Your task to perform on an android device: Clear the cart on newegg. Search for "alienware aurora" on newegg, select the first entry, add it to the cart, then select checkout. Image 0: 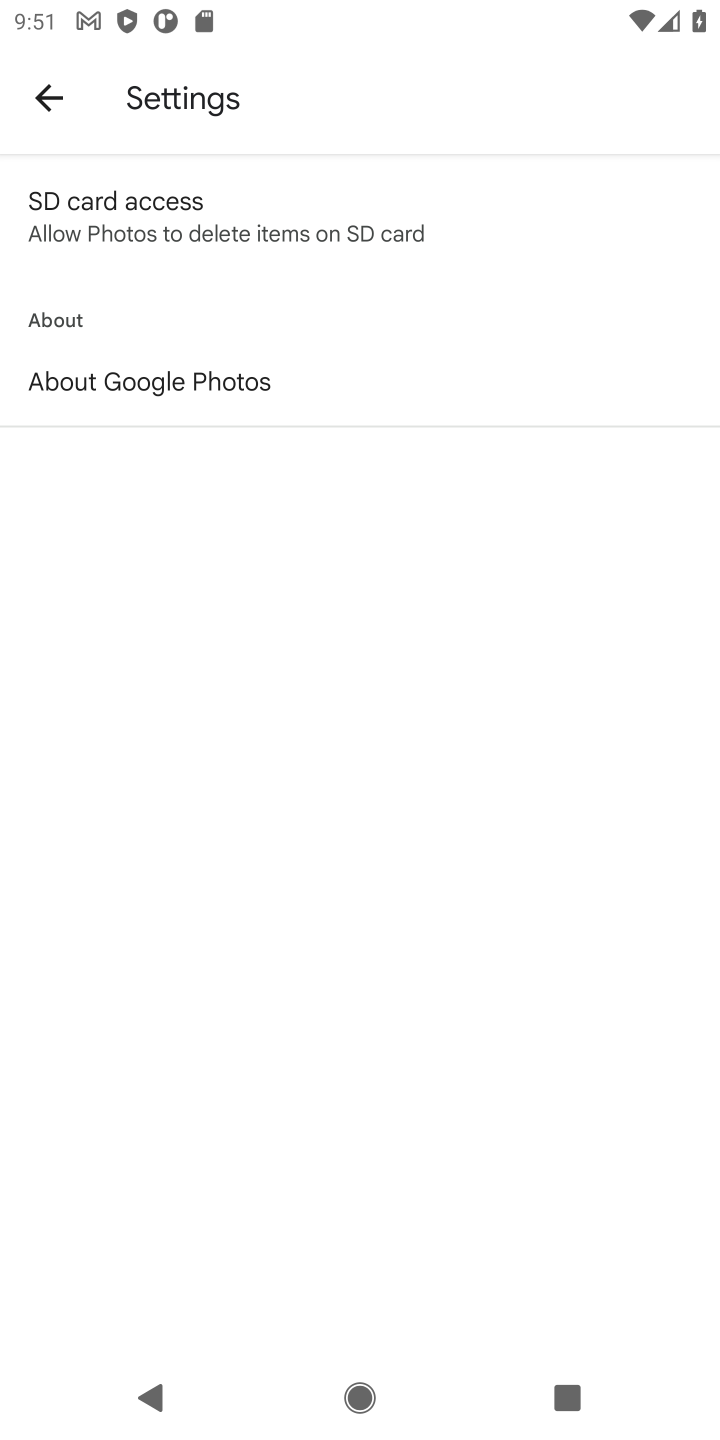
Step 0: press home button
Your task to perform on an android device: Clear the cart on newegg. Search for "alienware aurora" on newegg, select the first entry, add it to the cart, then select checkout. Image 1: 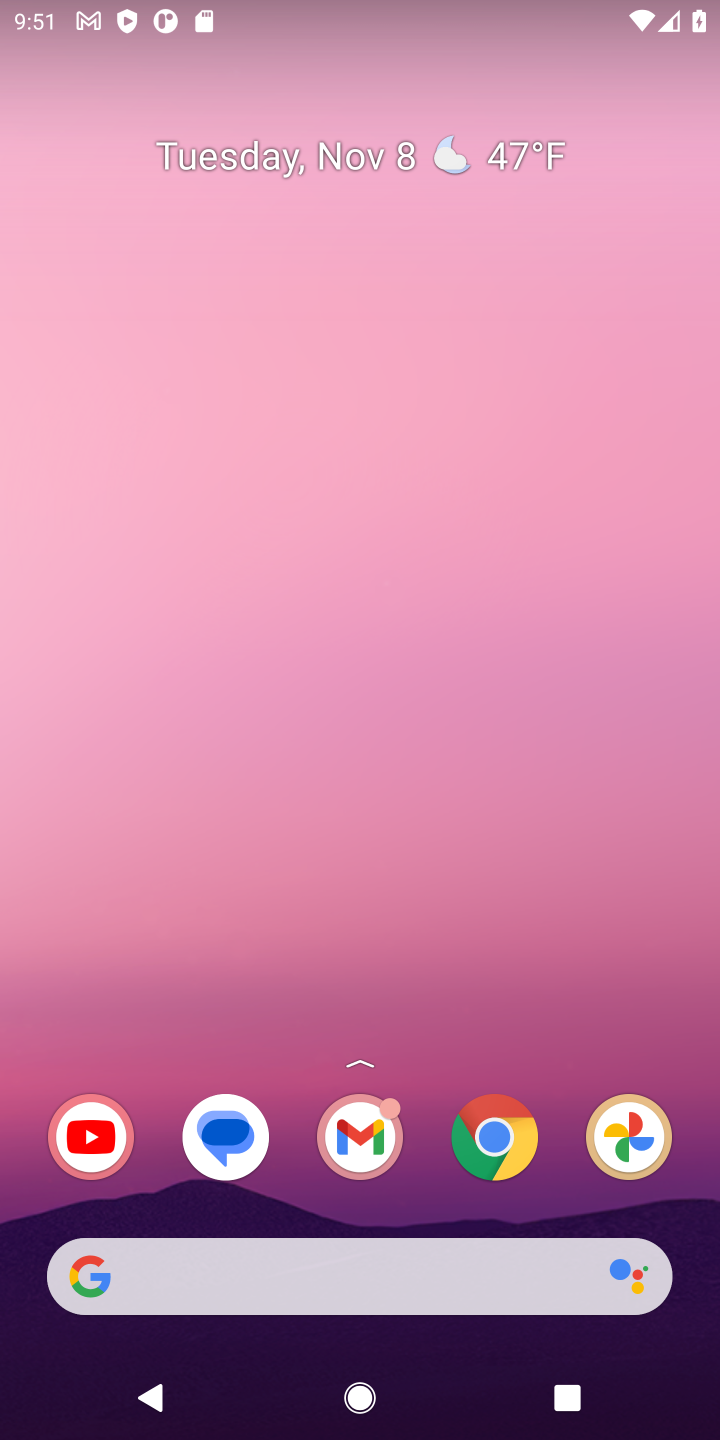
Step 1: click (498, 1140)
Your task to perform on an android device: Clear the cart on newegg. Search for "alienware aurora" on newegg, select the first entry, add it to the cart, then select checkout. Image 2: 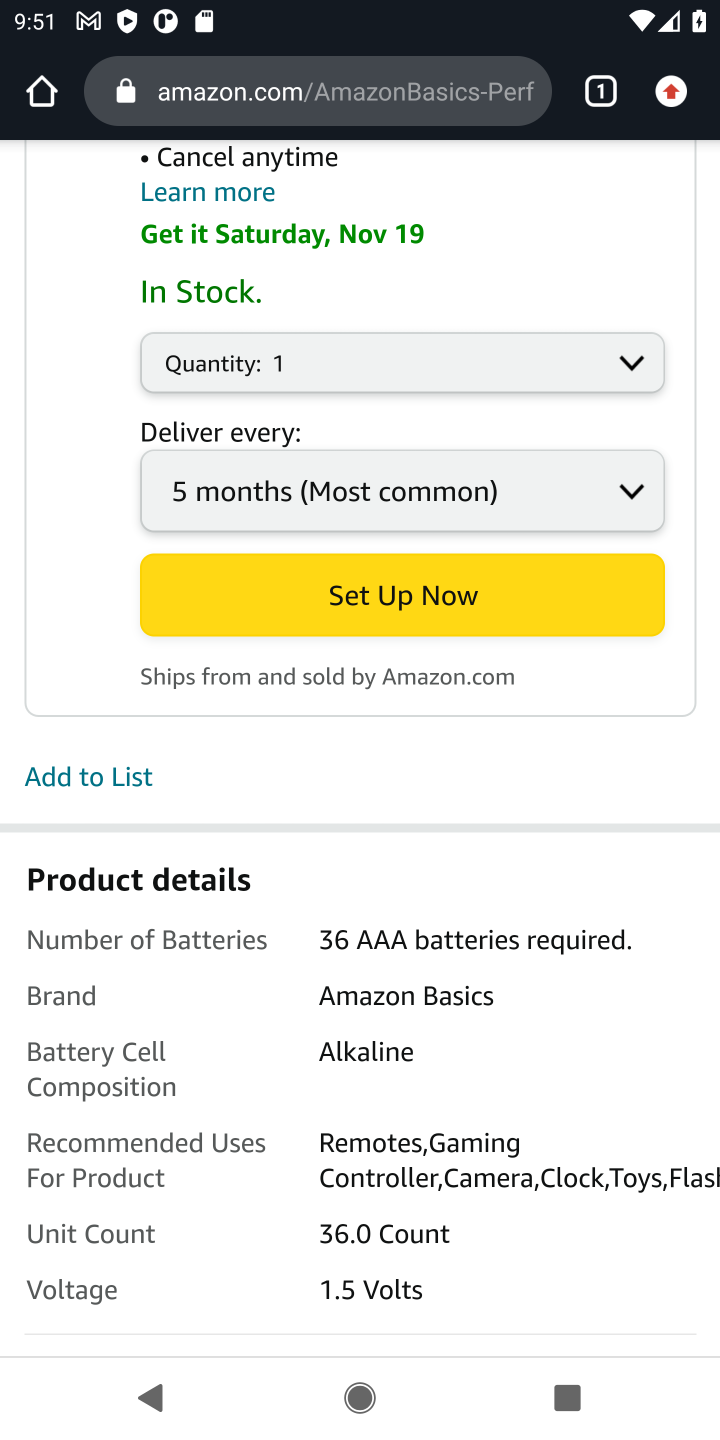
Step 2: click (379, 79)
Your task to perform on an android device: Clear the cart on newegg. Search for "alienware aurora" on newegg, select the first entry, add it to the cart, then select checkout. Image 3: 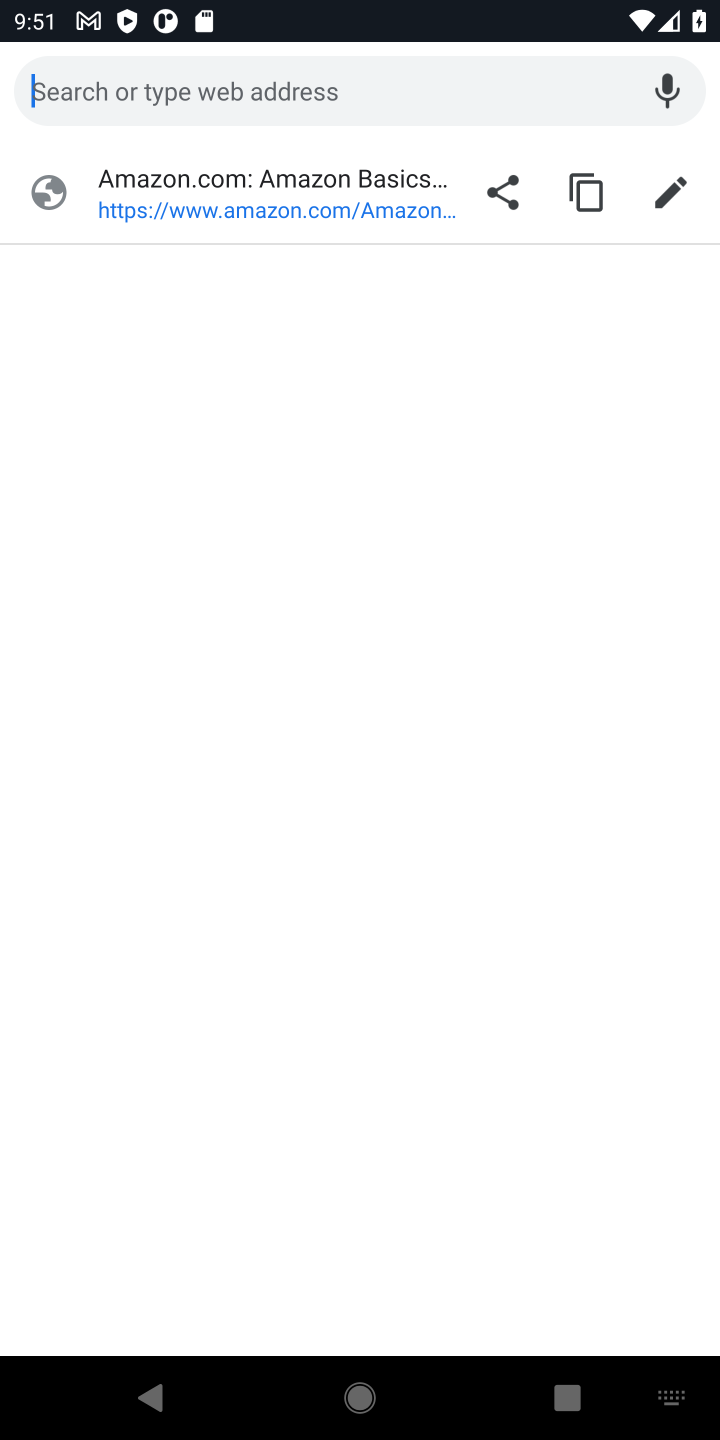
Step 3: type "newegg"
Your task to perform on an android device: Clear the cart on newegg. Search for "alienware aurora" on newegg, select the first entry, add it to the cart, then select checkout. Image 4: 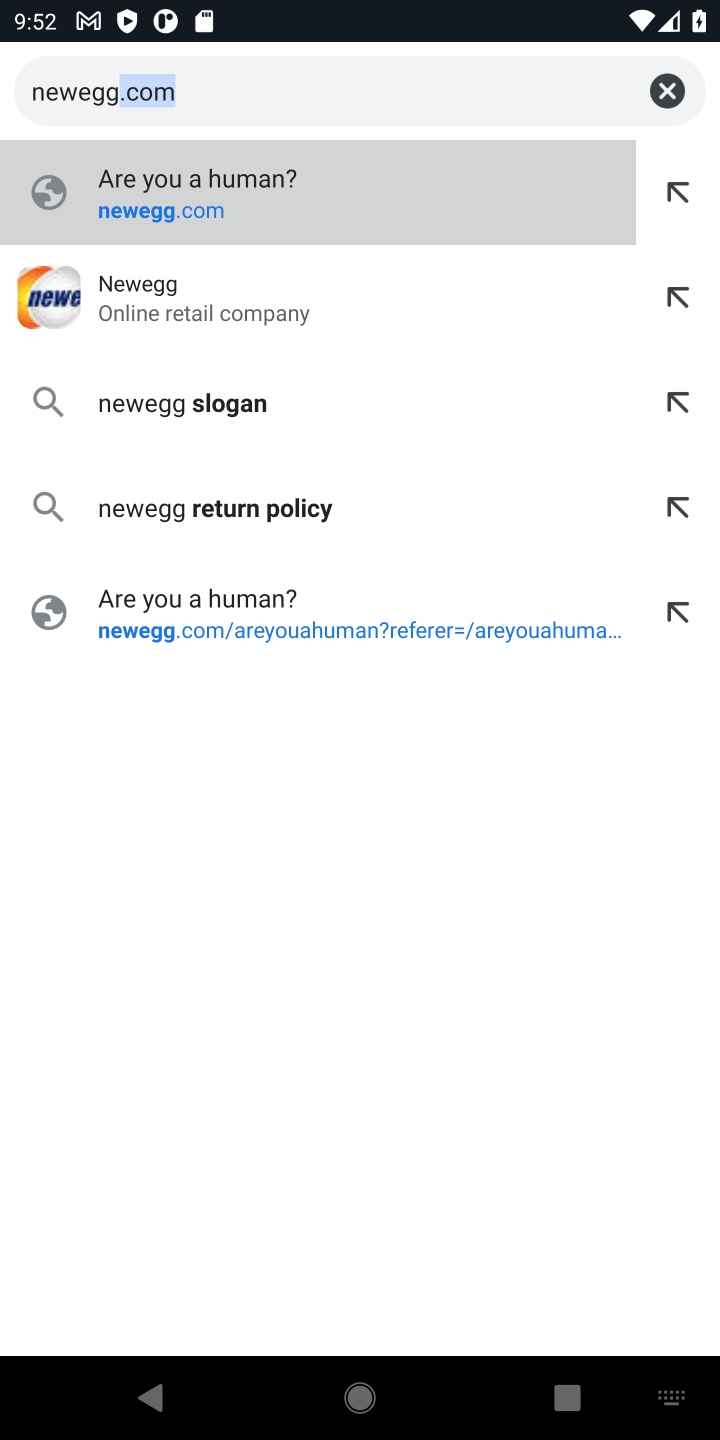
Step 4: click (163, 309)
Your task to perform on an android device: Clear the cart on newegg. Search for "alienware aurora" on newegg, select the first entry, add it to the cart, then select checkout. Image 5: 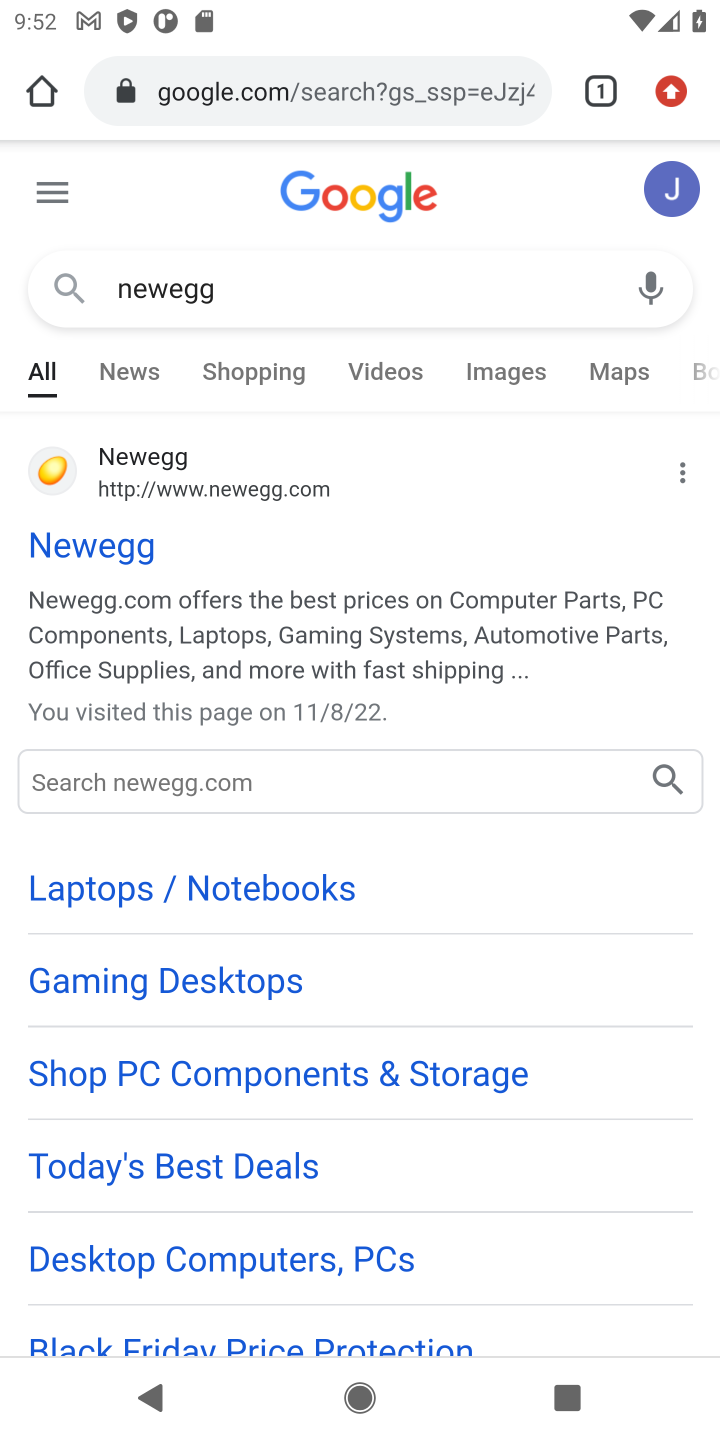
Step 5: click (108, 524)
Your task to perform on an android device: Clear the cart on newegg. Search for "alienware aurora" on newegg, select the first entry, add it to the cart, then select checkout. Image 6: 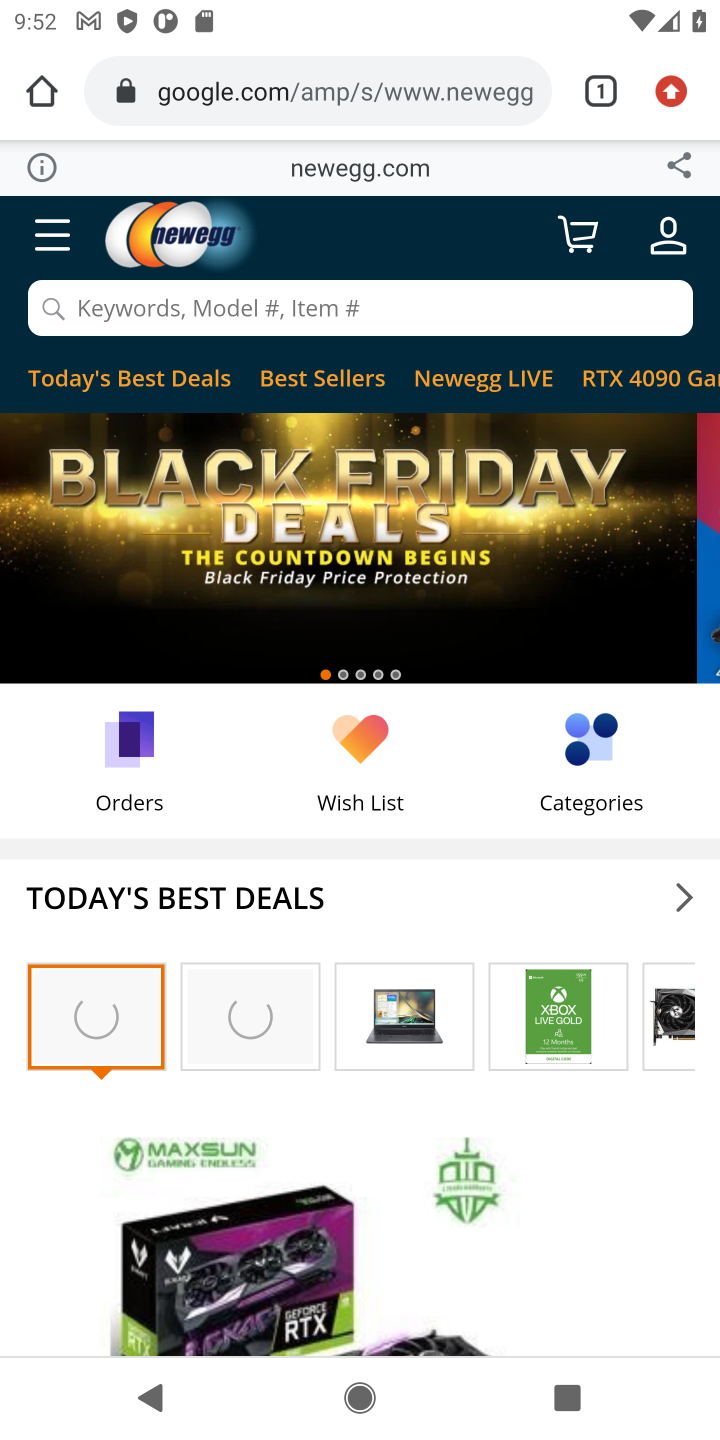
Step 6: click (593, 247)
Your task to perform on an android device: Clear the cart on newegg. Search for "alienware aurora" on newegg, select the first entry, add it to the cart, then select checkout. Image 7: 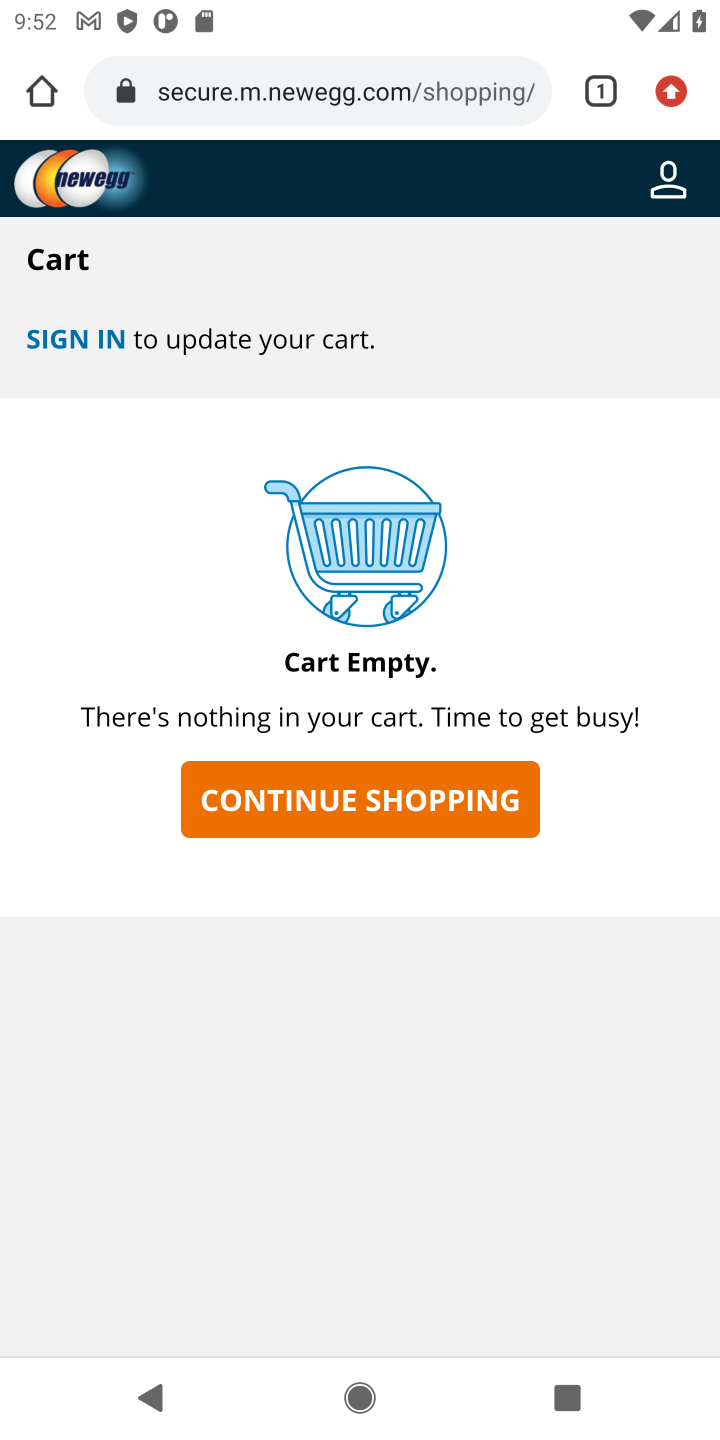
Step 7: click (332, 797)
Your task to perform on an android device: Clear the cart on newegg. Search for "alienware aurora" on newegg, select the first entry, add it to the cart, then select checkout. Image 8: 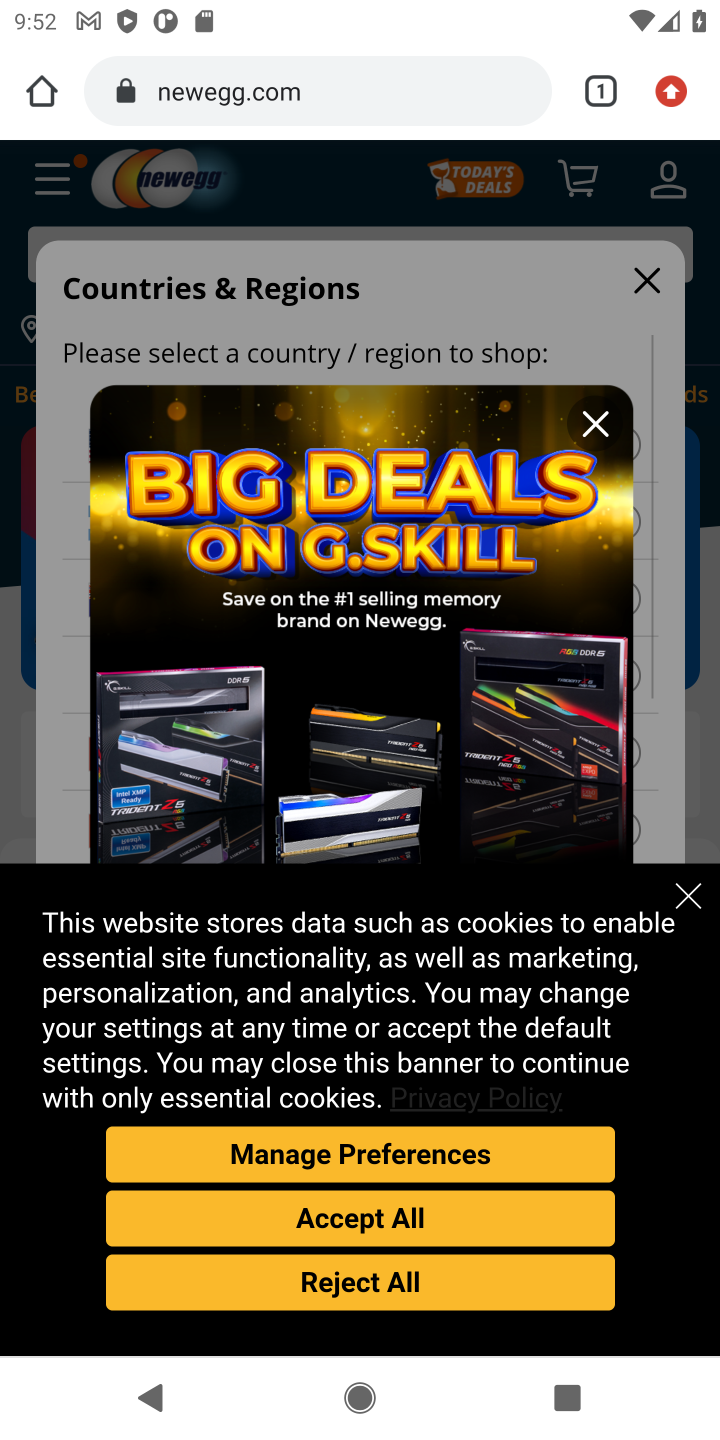
Step 8: click (383, 1219)
Your task to perform on an android device: Clear the cart on newegg. Search for "alienware aurora" on newegg, select the first entry, add it to the cart, then select checkout. Image 9: 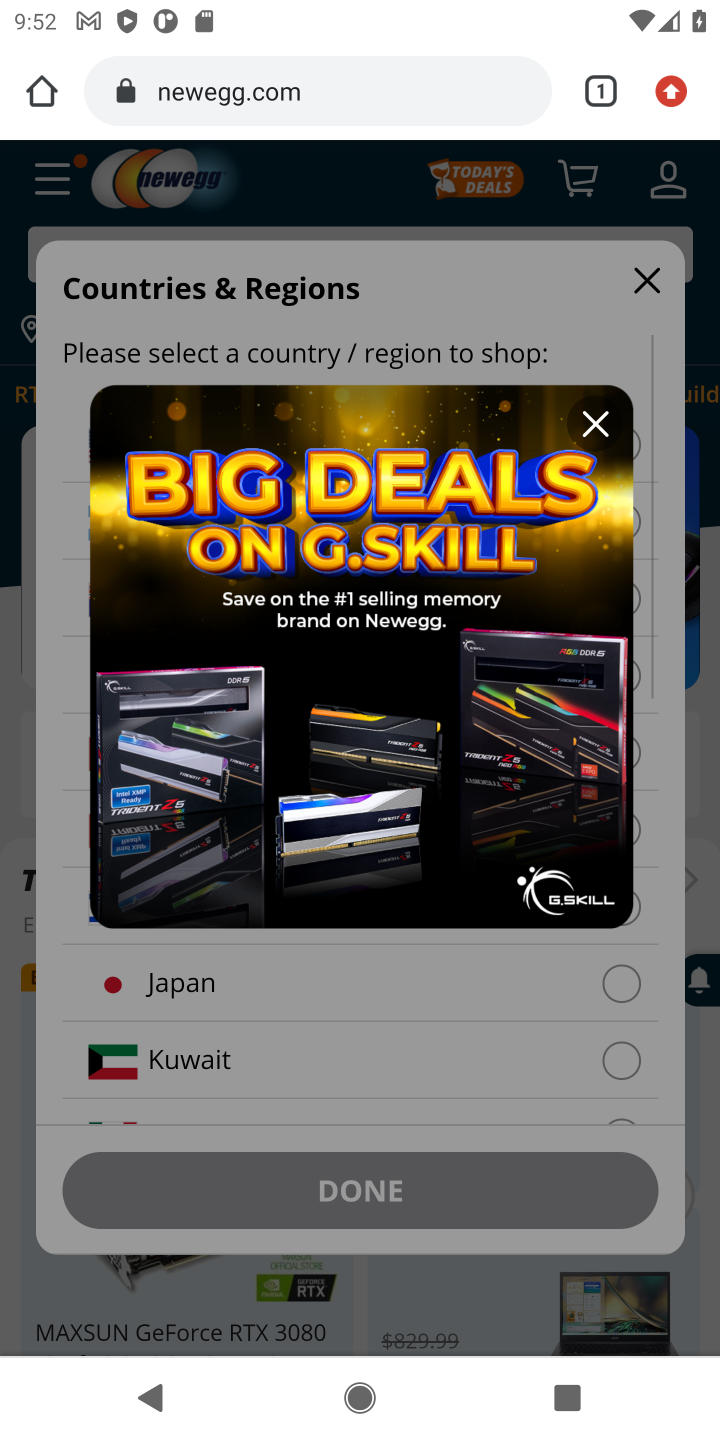
Step 9: click (646, 272)
Your task to perform on an android device: Clear the cart on newegg. Search for "alienware aurora" on newegg, select the first entry, add it to the cart, then select checkout. Image 10: 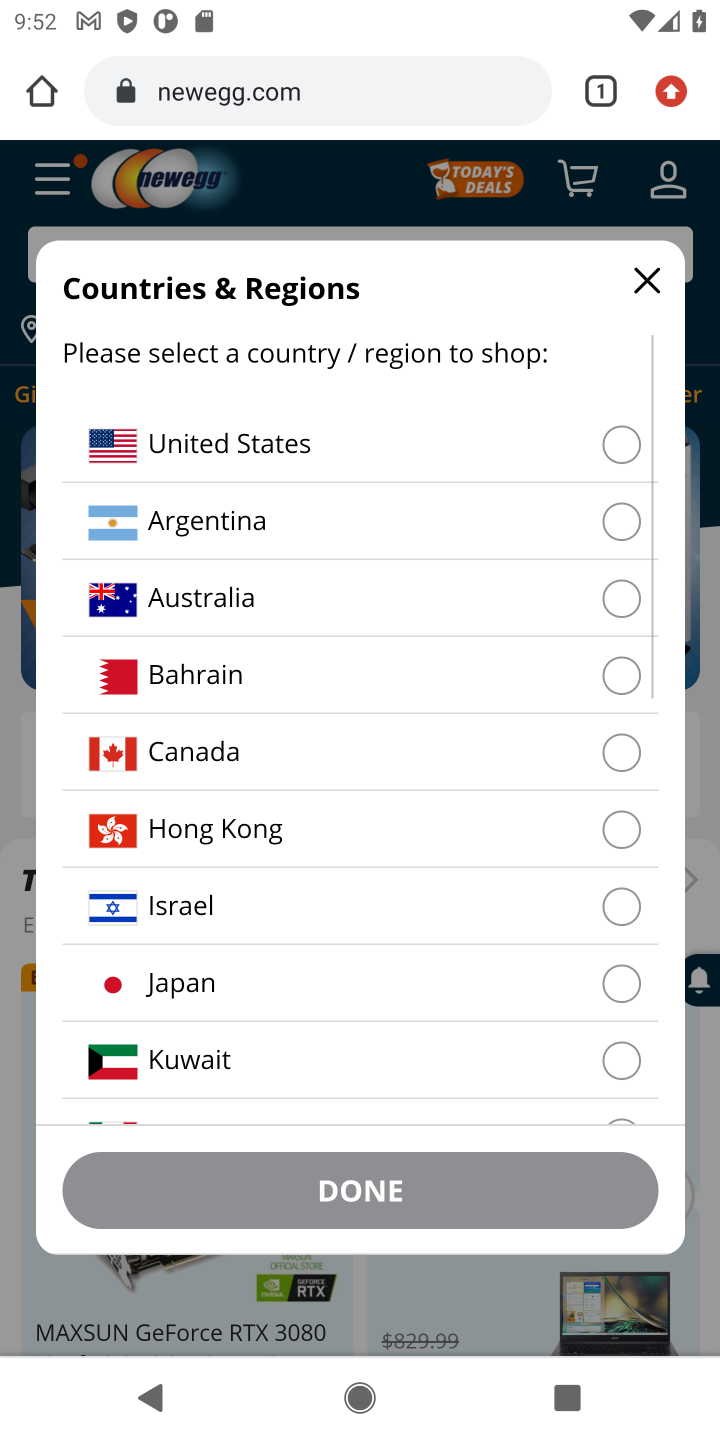
Step 10: click (625, 447)
Your task to perform on an android device: Clear the cart on newegg. Search for "alienware aurora" on newegg, select the first entry, add it to the cart, then select checkout. Image 11: 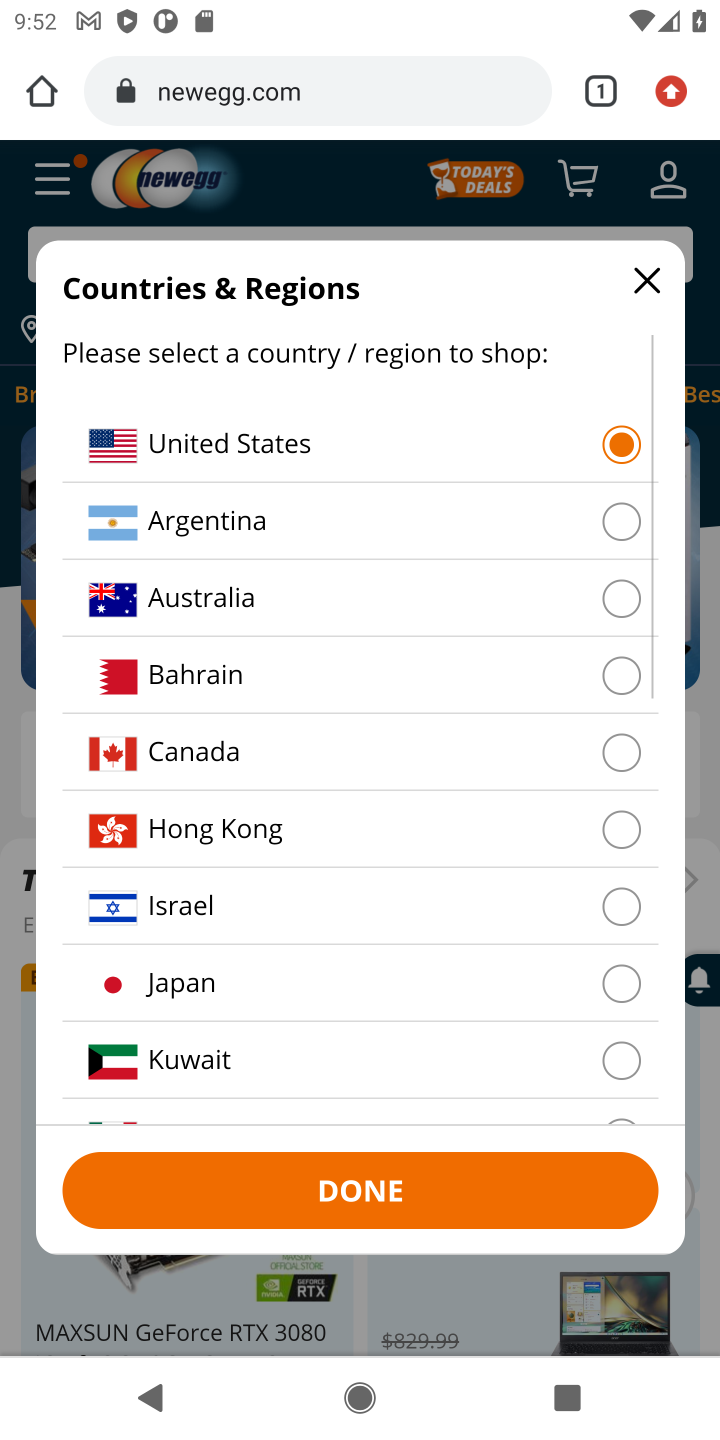
Step 11: click (409, 1178)
Your task to perform on an android device: Clear the cart on newegg. Search for "alienware aurora" on newegg, select the first entry, add it to the cart, then select checkout. Image 12: 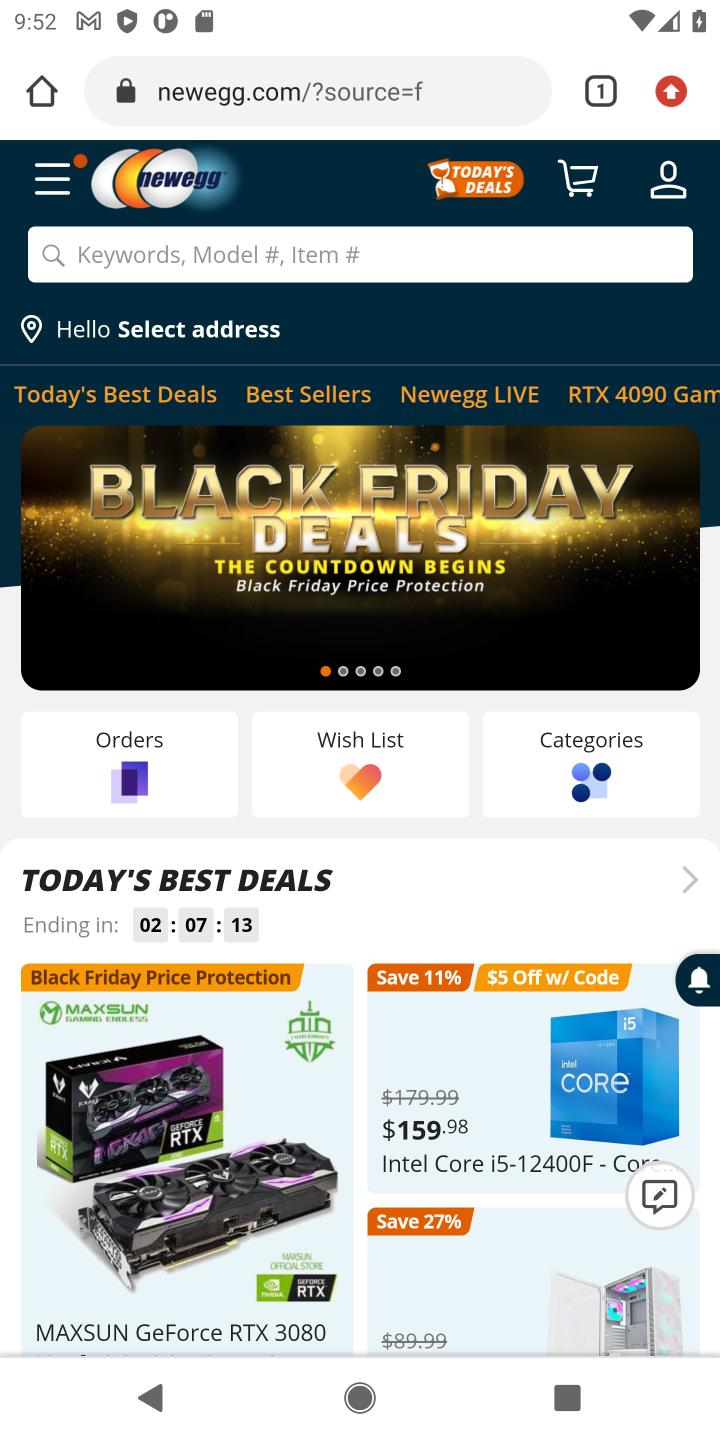
Step 12: click (279, 262)
Your task to perform on an android device: Clear the cart on newegg. Search for "alienware aurora" on newegg, select the first entry, add it to the cart, then select checkout. Image 13: 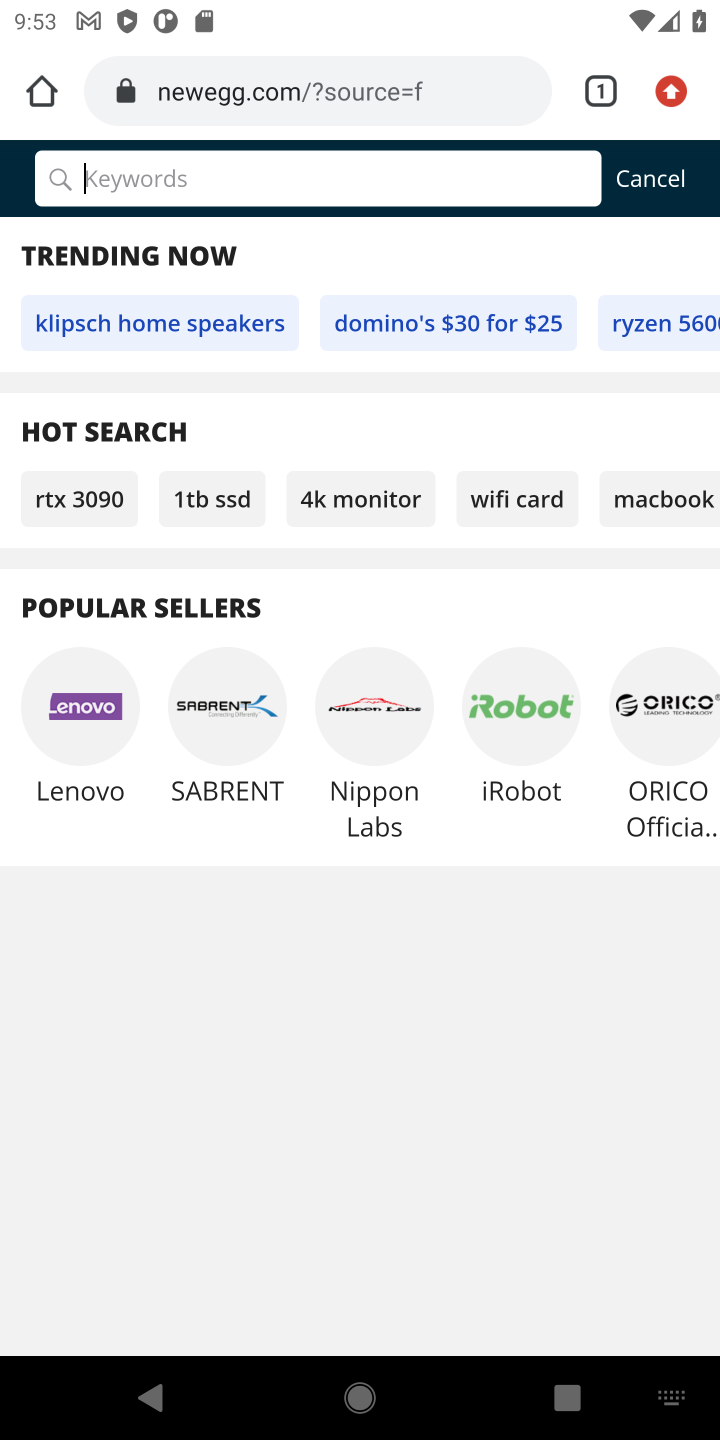
Step 13: type "alienware aurora"
Your task to perform on an android device: Clear the cart on newegg. Search for "alienware aurora" on newegg, select the first entry, add it to the cart, then select checkout. Image 14: 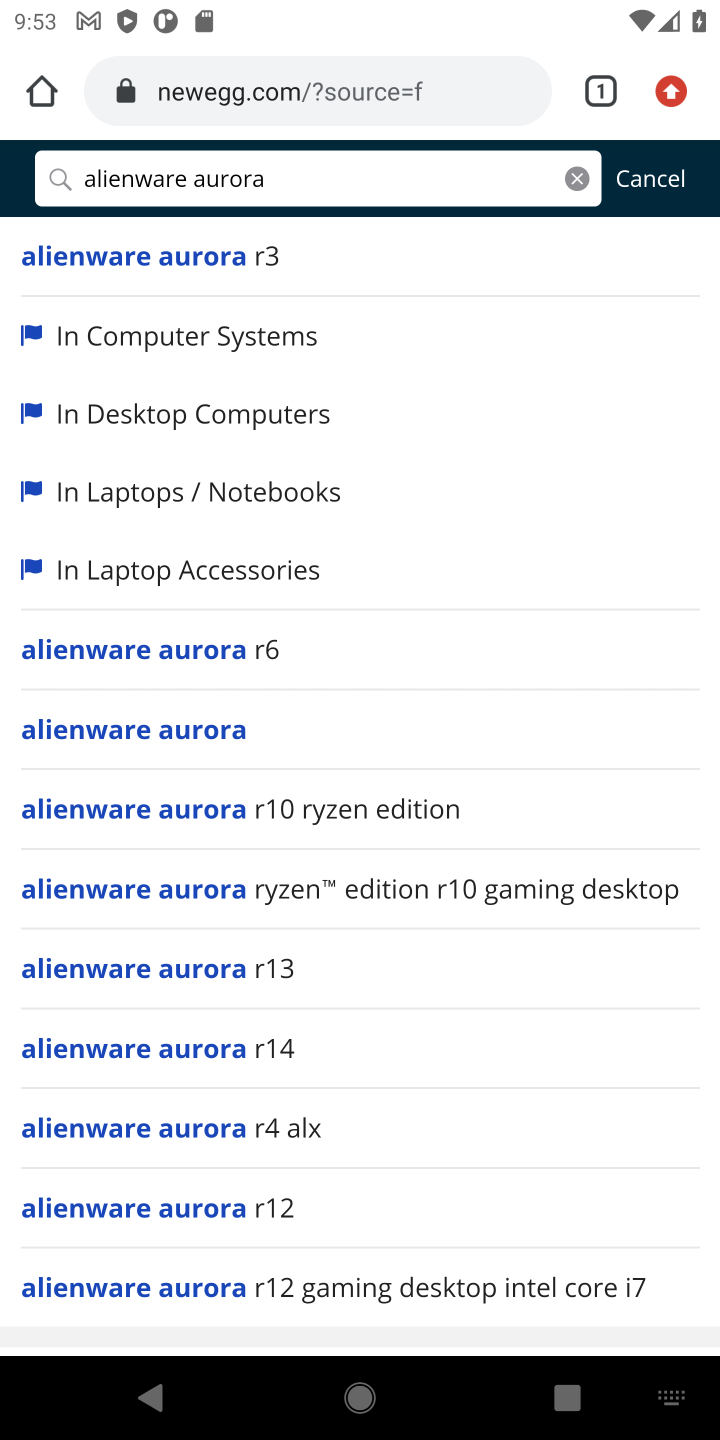
Step 14: click (127, 738)
Your task to perform on an android device: Clear the cart on newegg. Search for "alienware aurora" on newegg, select the first entry, add it to the cart, then select checkout. Image 15: 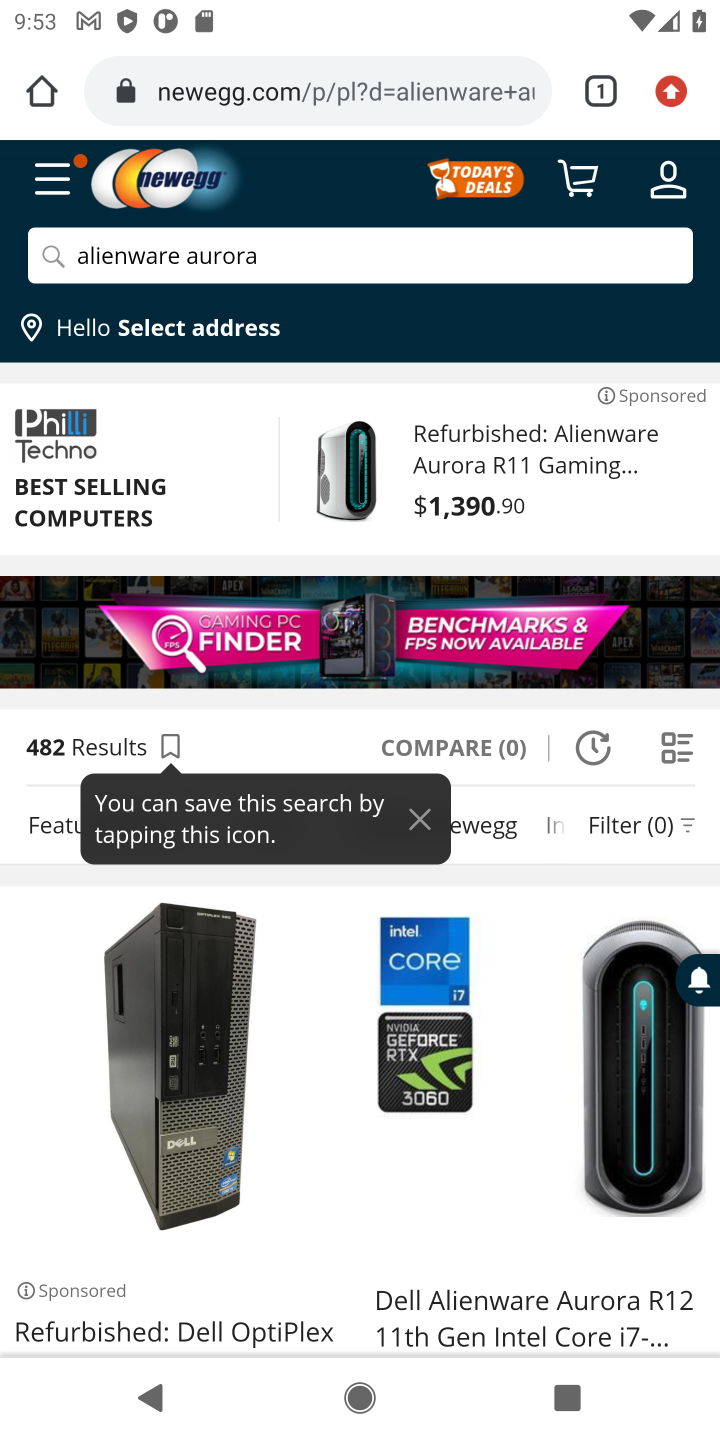
Step 15: drag from (307, 1190) to (287, 599)
Your task to perform on an android device: Clear the cart on newegg. Search for "alienware aurora" on newegg, select the first entry, add it to the cart, then select checkout. Image 16: 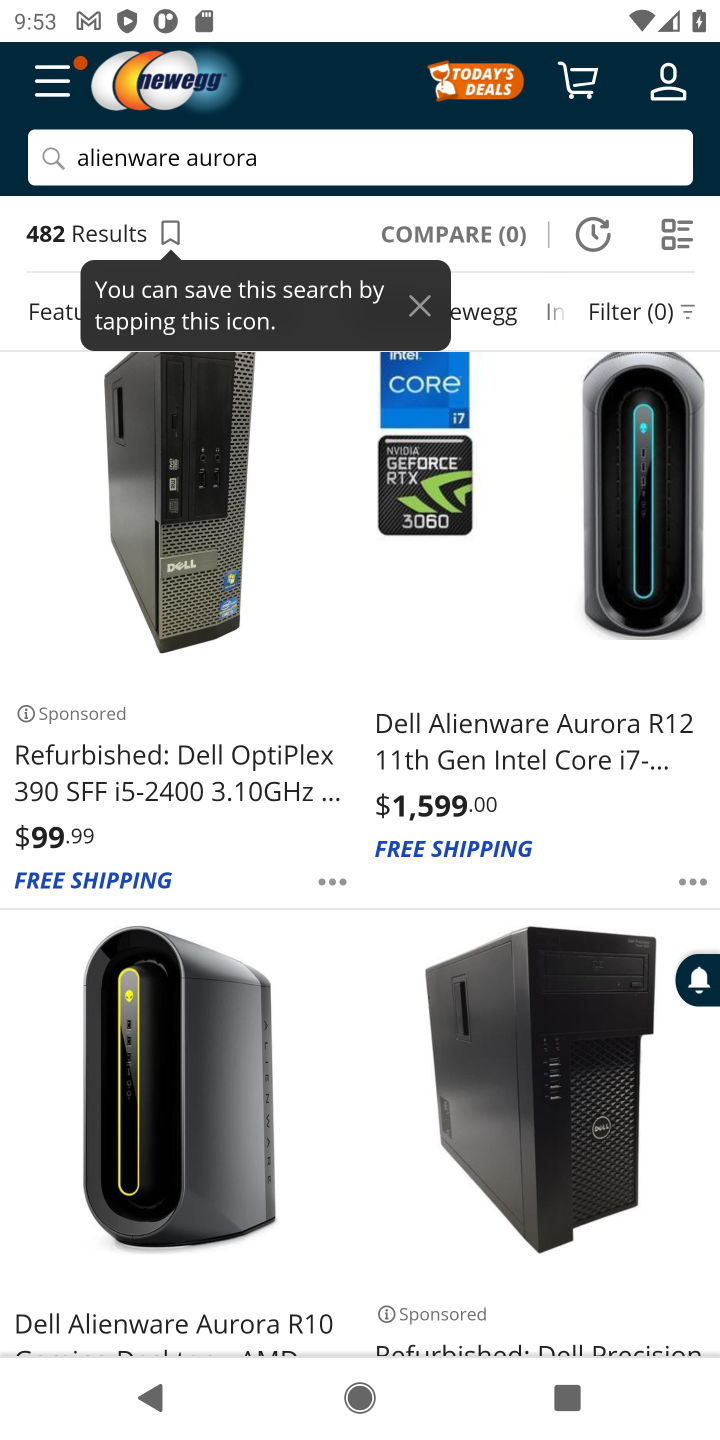
Step 16: click (519, 715)
Your task to perform on an android device: Clear the cart on newegg. Search for "alienware aurora" on newegg, select the first entry, add it to the cart, then select checkout. Image 17: 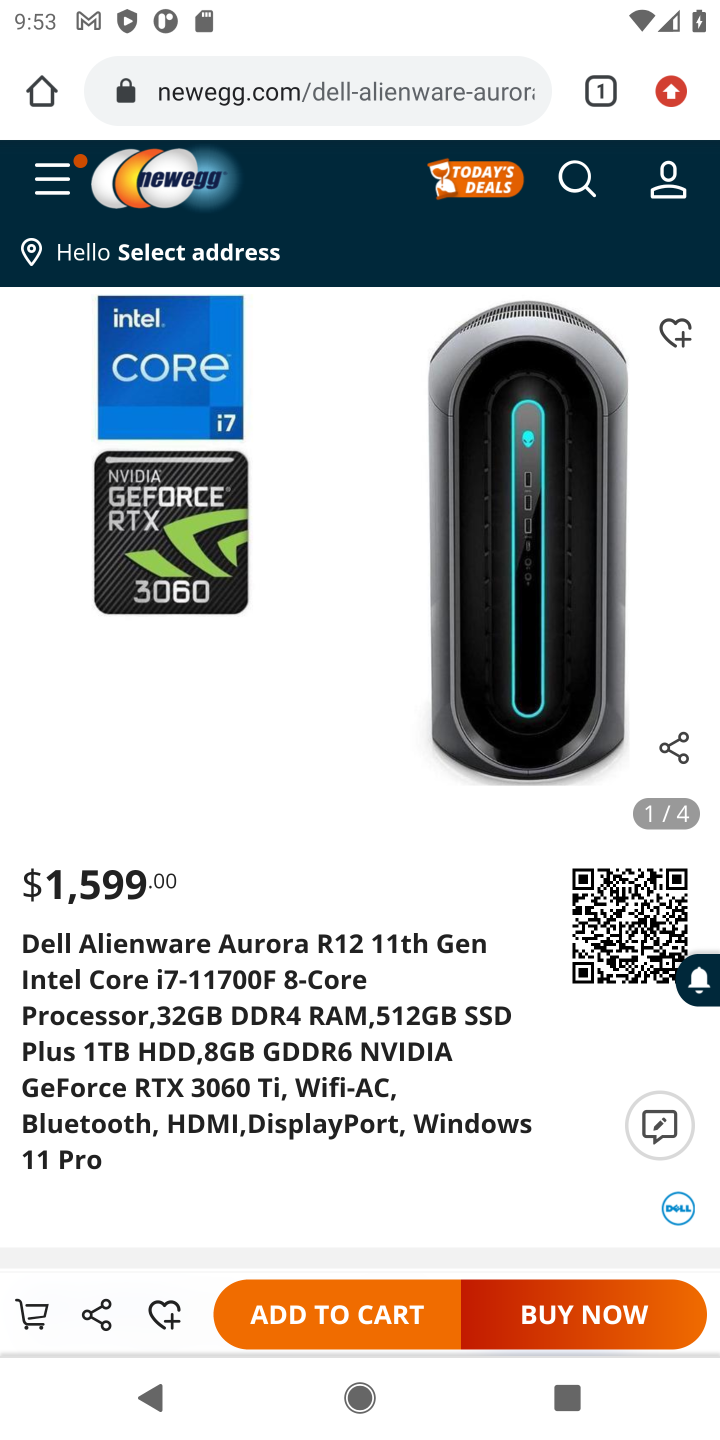
Step 17: click (344, 1314)
Your task to perform on an android device: Clear the cart on newegg. Search for "alienware aurora" on newegg, select the first entry, add it to the cart, then select checkout. Image 18: 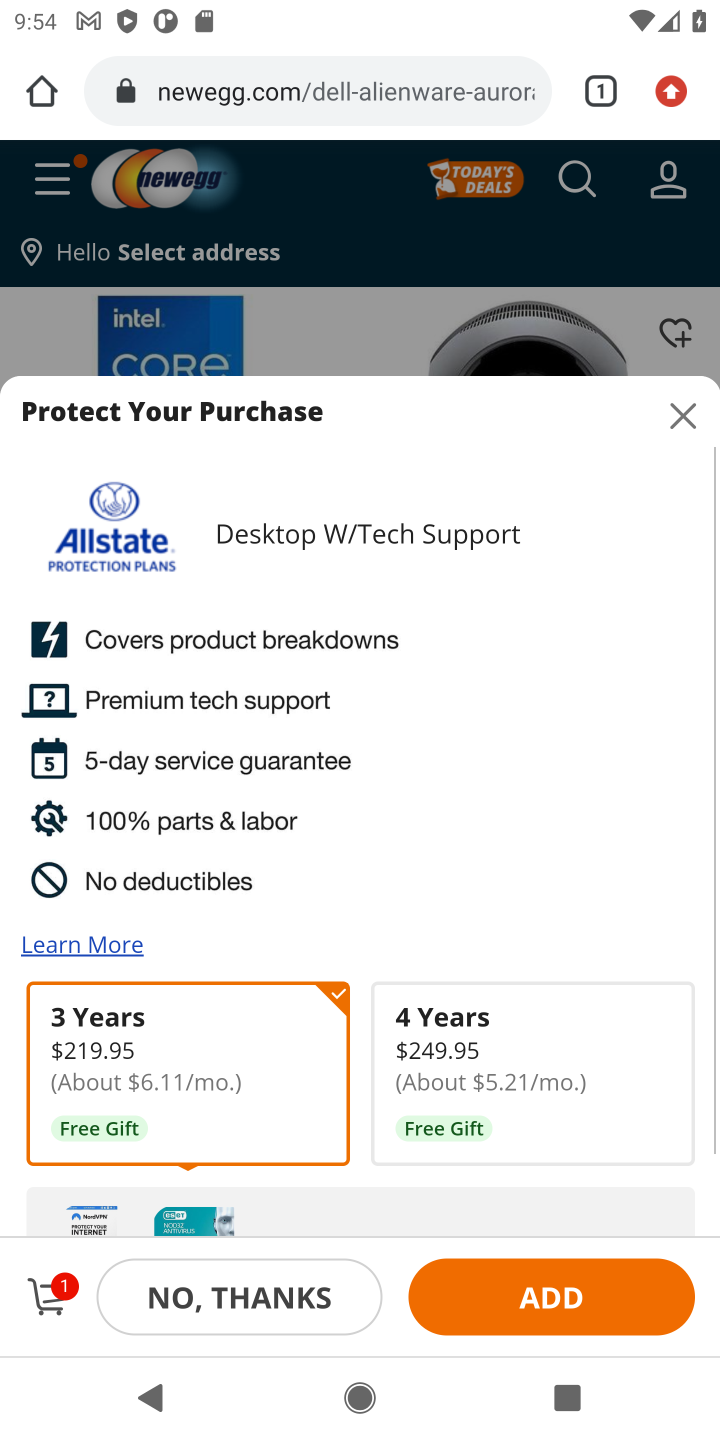
Step 18: click (263, 1297)
Your task to perform on an android device: Clear the cart on newegg. Search for "alienware aurora" on newegg, select the first entry, add it to the cart, then select checkout. Image 19: 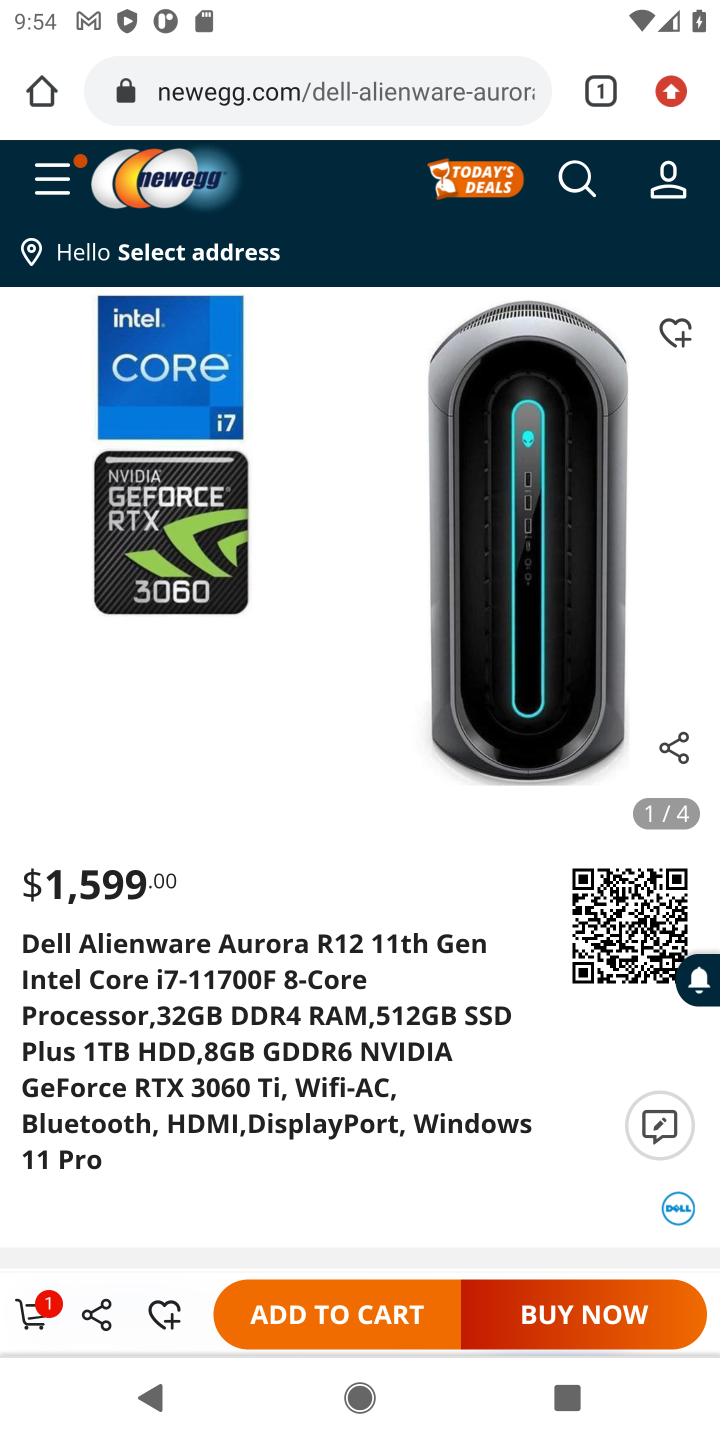
Step 19: click (44, 1305)
Your task to perform on an android device: Clear the cart on newegg. Search for "alienware aurora" on newegg, select the first entry, add it to the cart, then select checkout. Image 20: 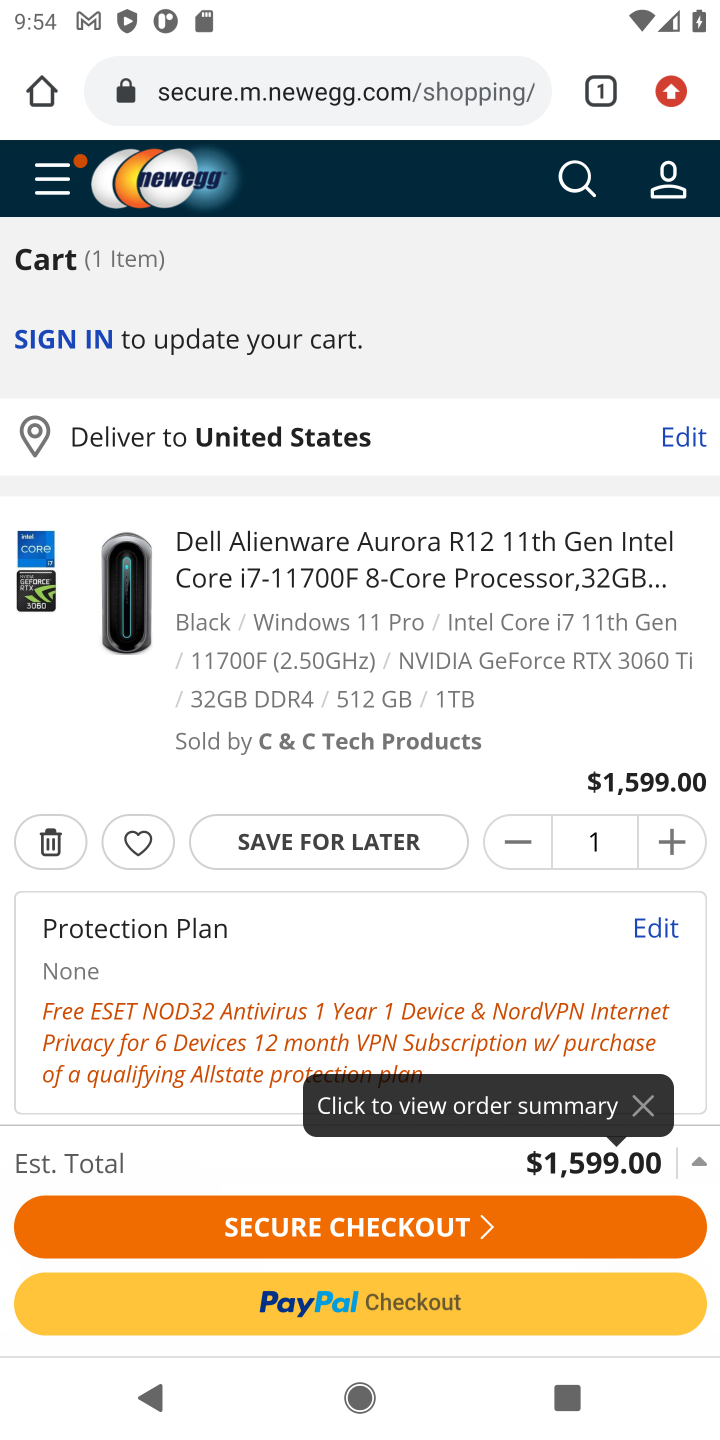
Step 20: click (325, 1210)
Your task to perform on an android device: Clear the cart on newegg. Search for "alienware aurora" on newegg, select the first entry, add it to the cart, then select checkout. Image 21: 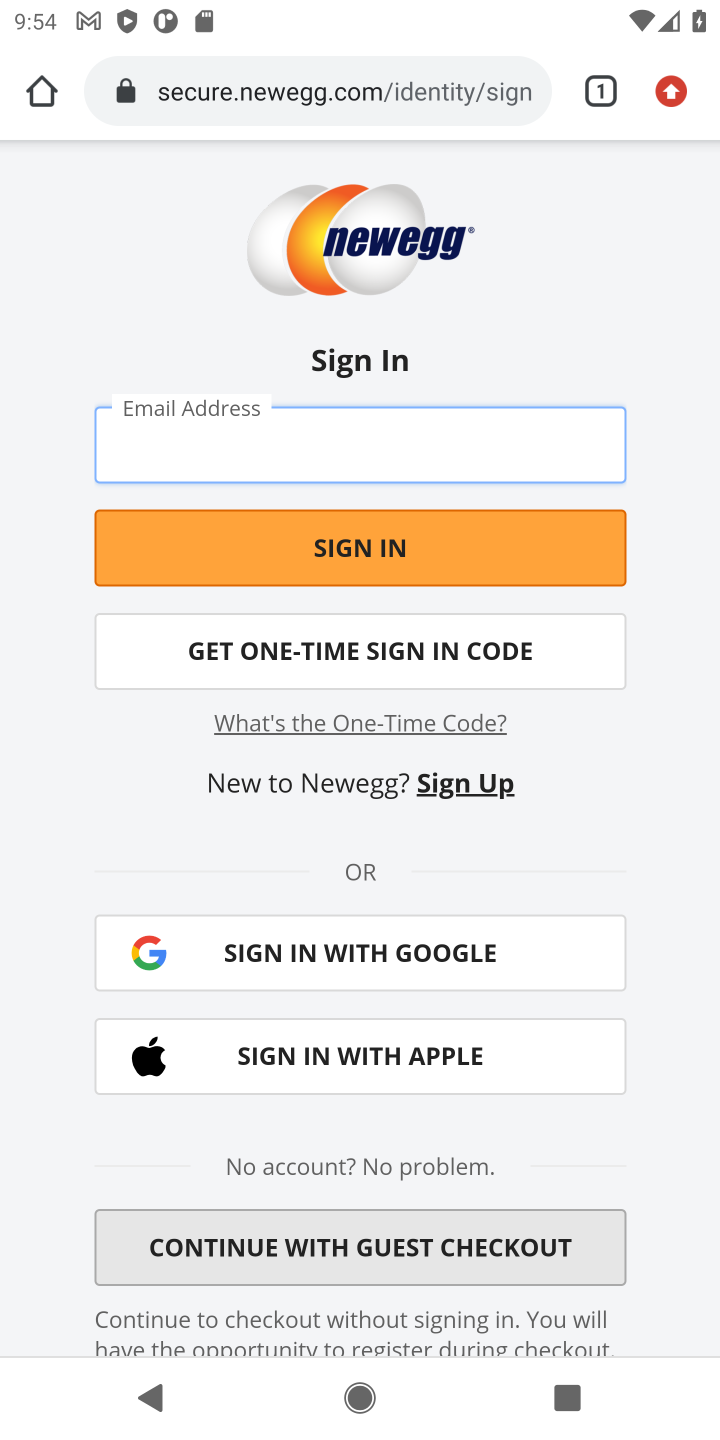
Step 21: task complete